Your task to perform on an android device: open app "NewsBreak: Local News & Alerts" (install if not already installed), go to login, and select forgot password Image 0: 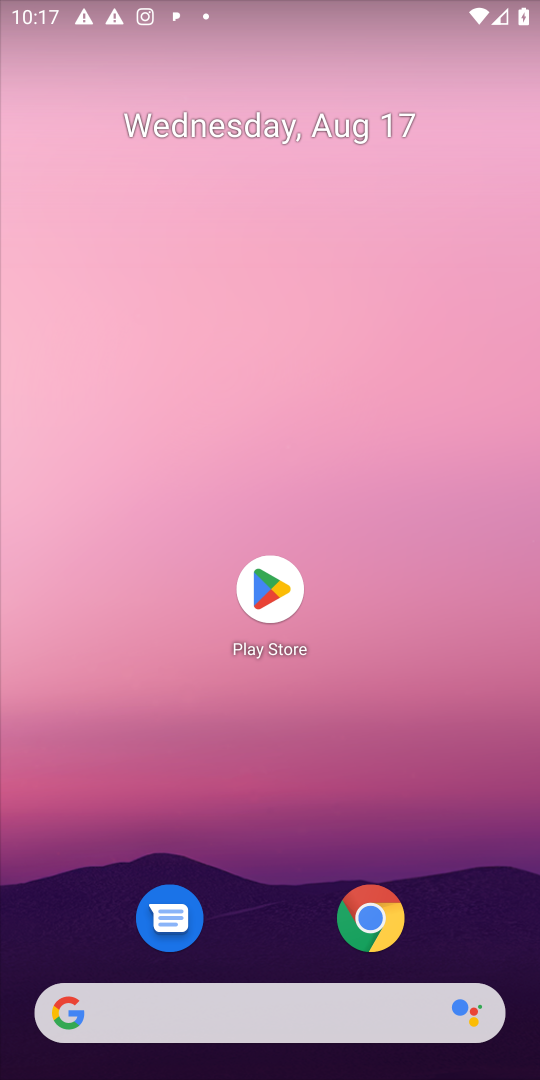
Step 0: press home button
Your task to perform on an android device: open app "NewsBreak: Local News & Alerts" (install if not already installed), go to login, and select forgot password Image 1: 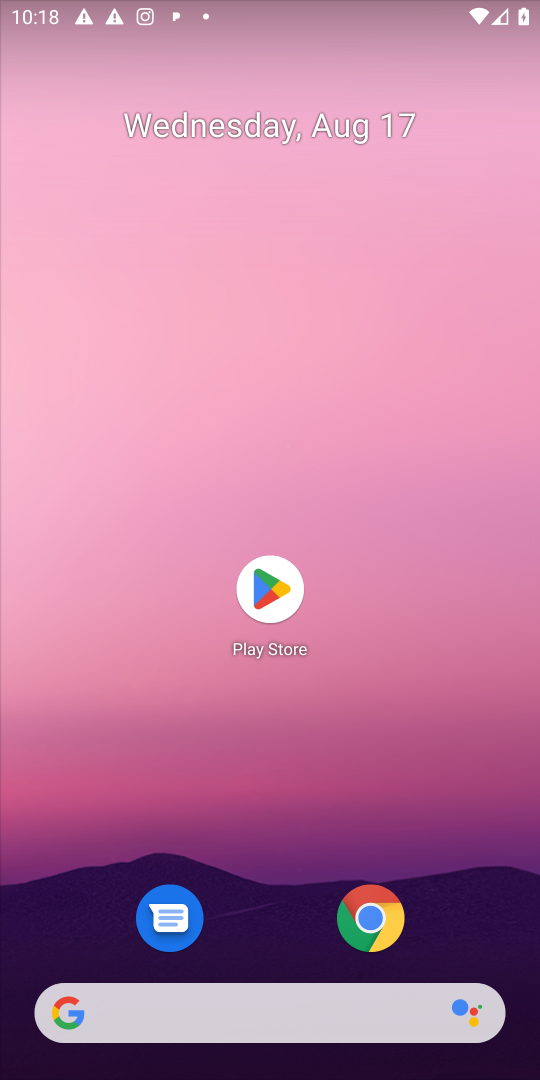
Step 1: click (278, 578)
Your task to perform on an android device: open app "NewsBreak: Local News & Alerts" (install if not already installed), go to login, and select forgot password Image 2: 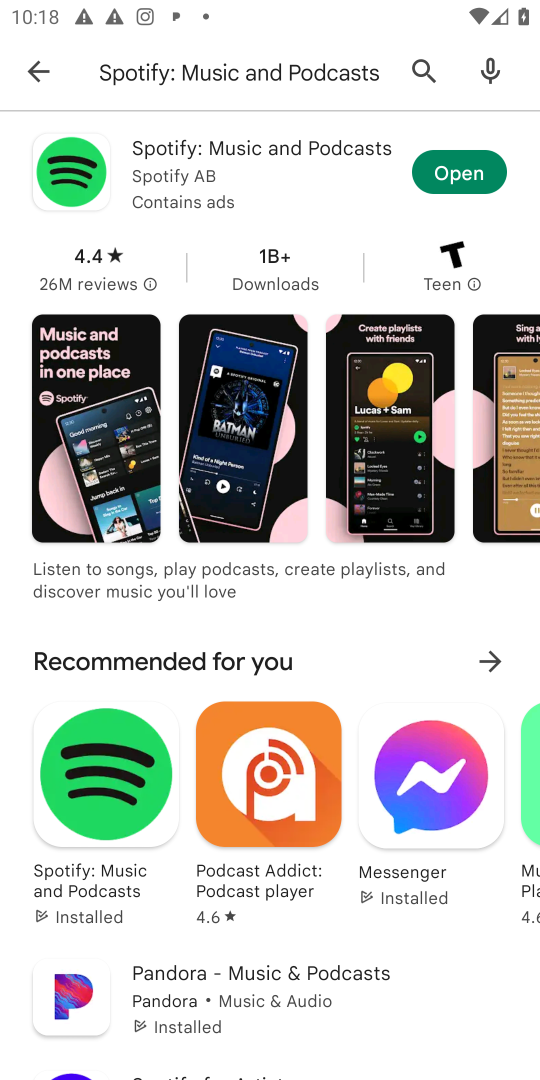
Step 2: click (411, 71)
Your task to perform on an android device: open app "NewsBreak: Local News & Alerts" (install if not already installed), go to login, and select forgot password Image 3: 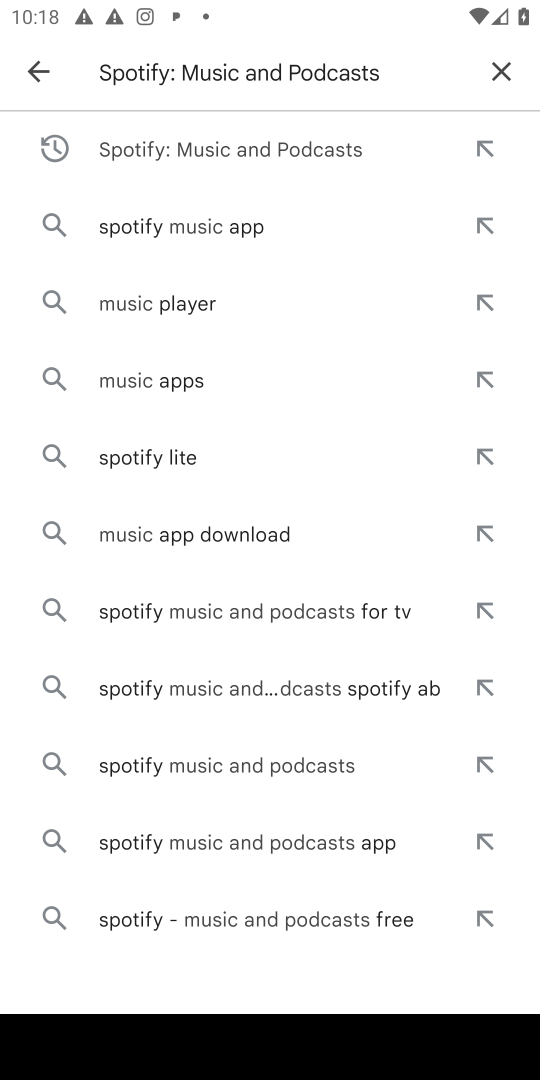
Step 3: click (500, 69)
Your task to perform on an android device: open app "NewsBreak: Local News & Alerts" (install if not already installed), go to login, and select forgot password Image 4: 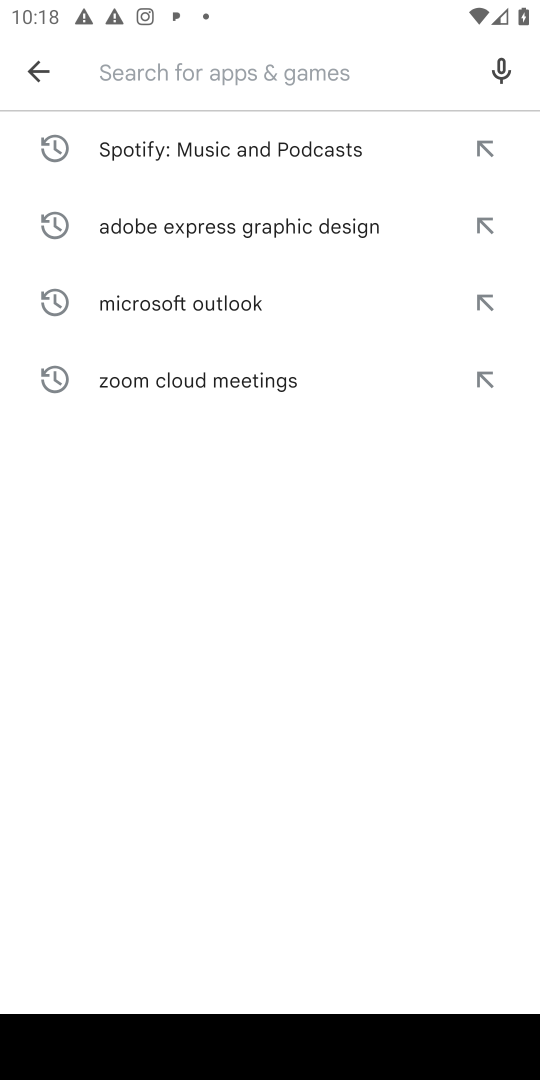
Step 4: type "NewsBreak: Local News & Alerts"
Your task to perform on an android device: open app "NewsBreak: Local News & Alerts" (install if not already installed), go to login, and select forgot password Image 5: 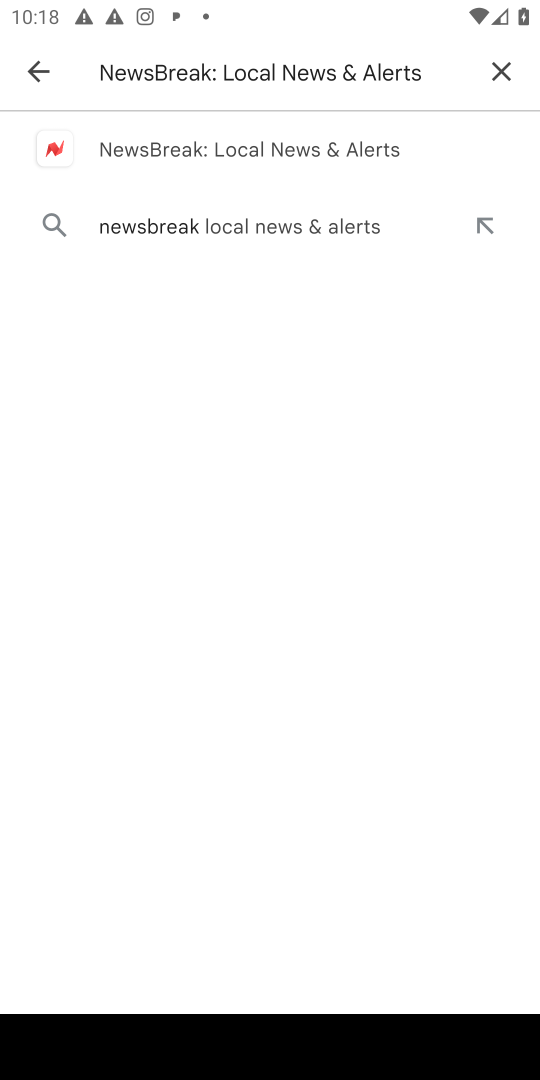
Step 5: click (329, 156)
Your task to perform on an android device: open app "NewsBreak: Local News & Alerts" (install if not already installed), go to login, and select forgot password Image 6: 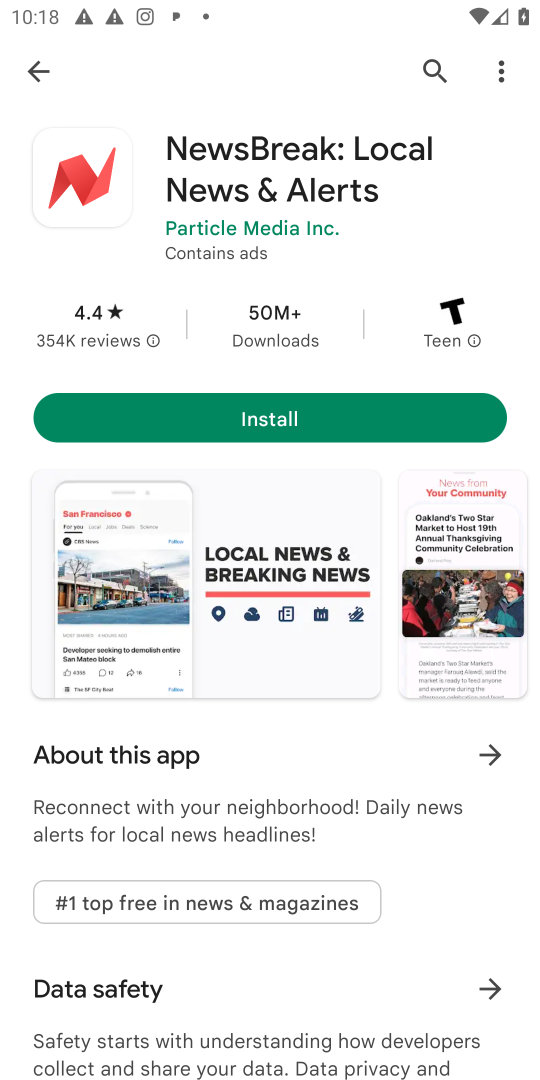
Step 6: click (301, 425)
Your task to perform on an android device: open app "NewsBreak: Local News & Alerts" (install if not already installed), go to login, and select forgot password Image 7: 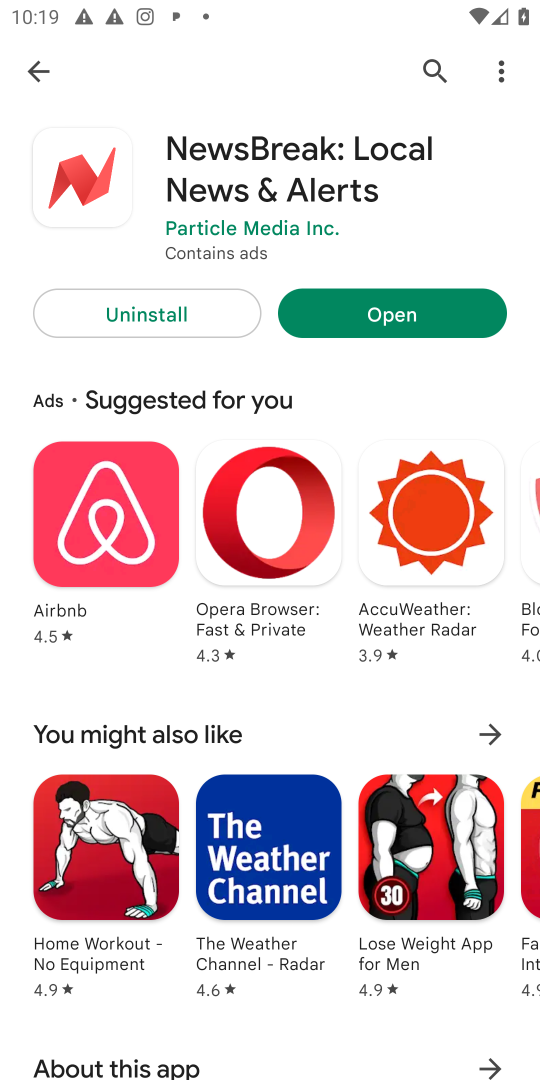
Step 7: click (410, 311)
Your task to perform on an android device: open app "NewsBreak: Local News & Alerts" (install if not already installed), go to login, and select forgot password Image 8: 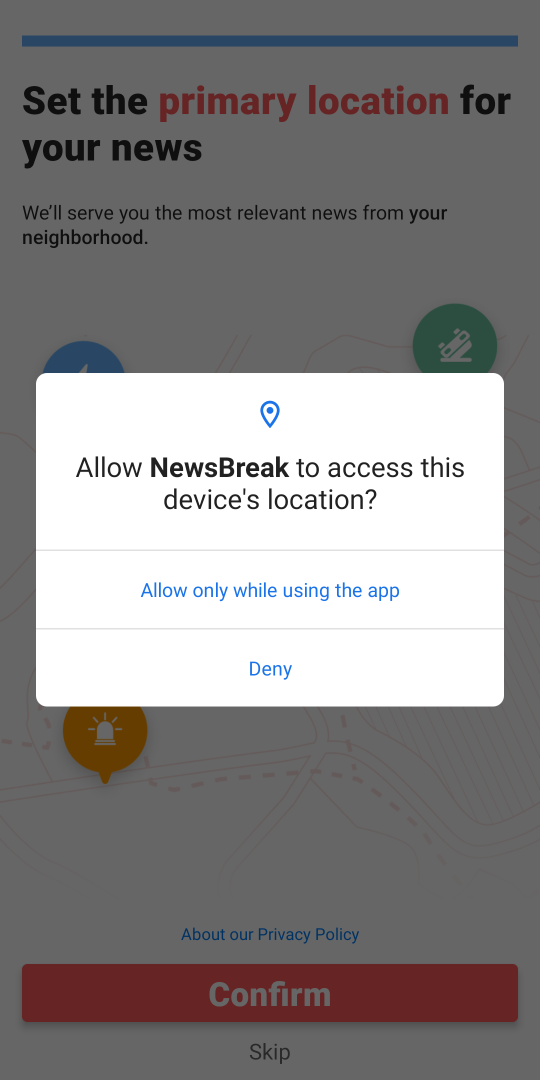
Step 8: click (264, 597)
Your task to perform on an android device: open app "NewsBreak: Local News & Alerts" (install if not already installed), go to login, and select forgot password Image 9: 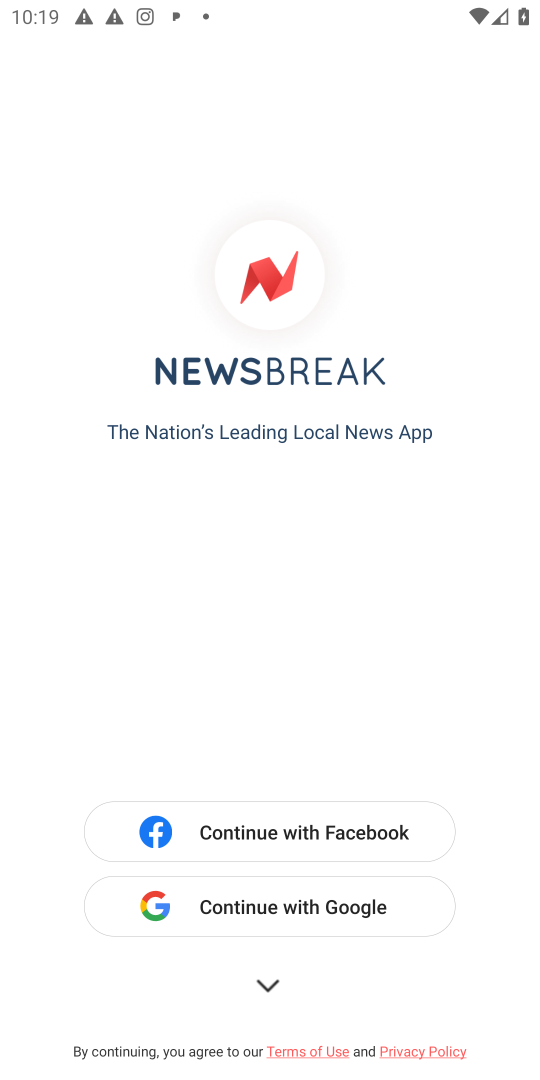
Step 9: click (270, 984)
Your task to perform on an android device: open app "NewsBreak: Local News & Alerts" (install if not already installed), go to login, and select forgot password Image 10: 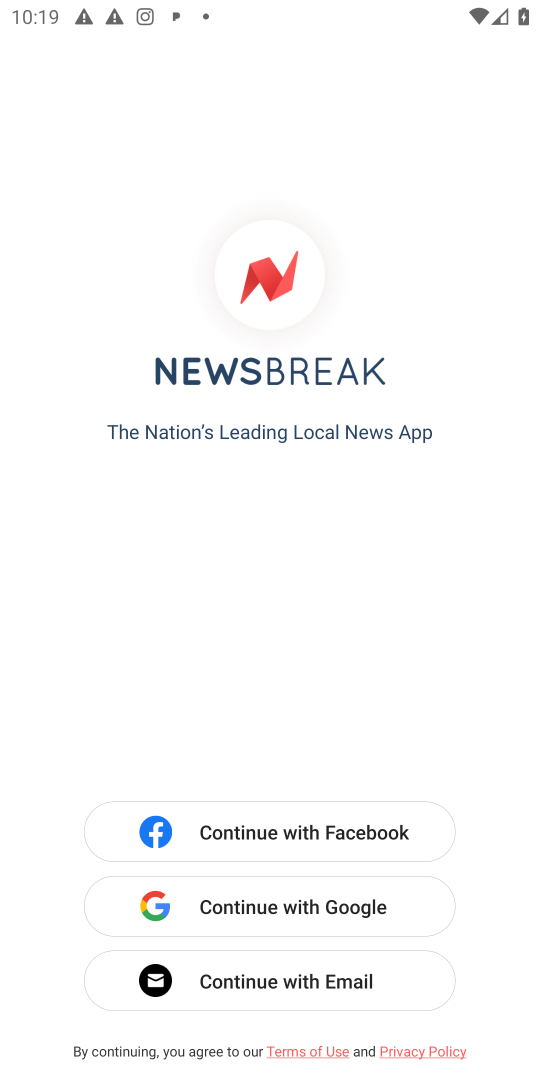
Step 10: click (294, 979)
Your task to perform on an android device: open app "NewsBreak: Local News & Alerts" (install if not already installed), go to login, and select forgot password Image 11: 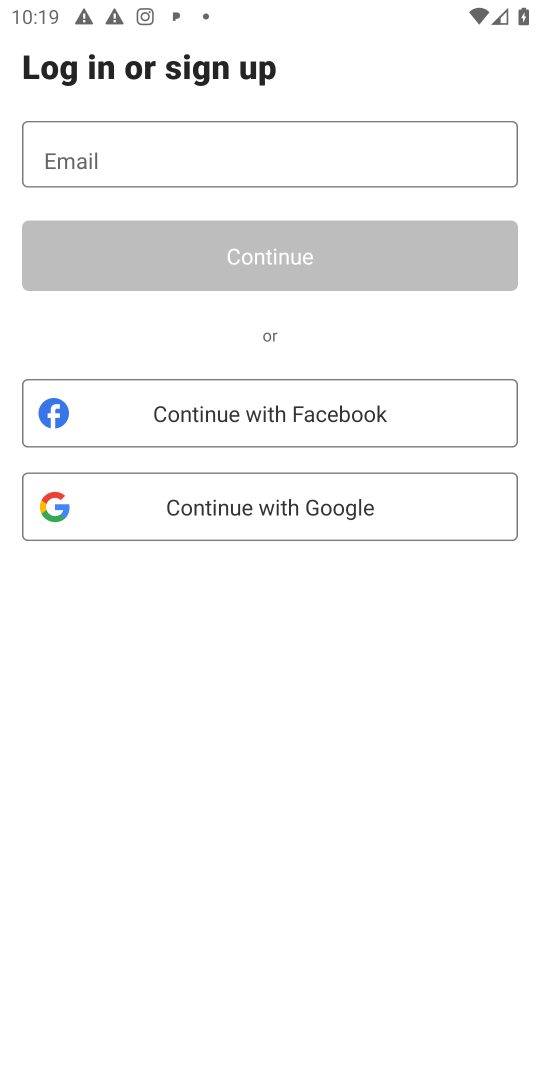
Step 11: task complete